Your task to perform on an android device: check out phone information Image 0: 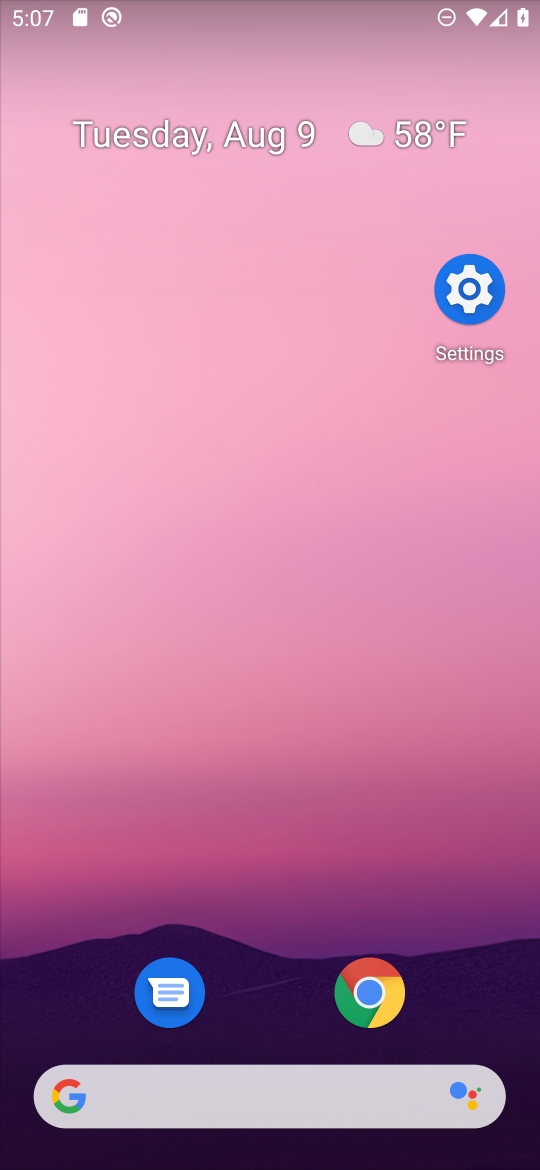
Step 0: drag from (296, 1087) to (476, 18)
Your task to perform on an android device: check out phone information Image 1: 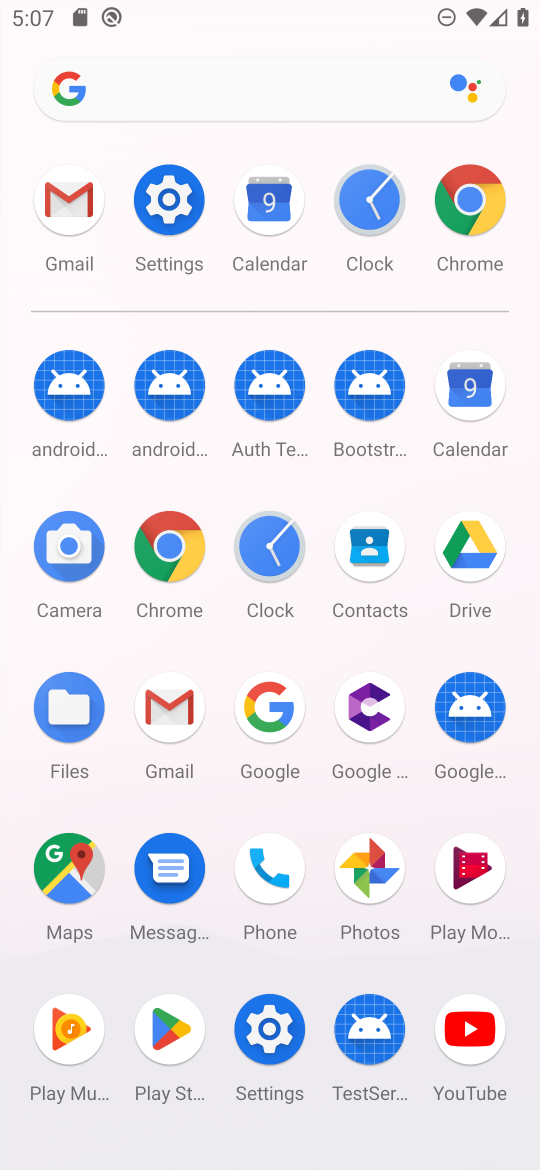
Step 1: click (186, 180)
Your task to perform on an android device: check out phone information Image 2: 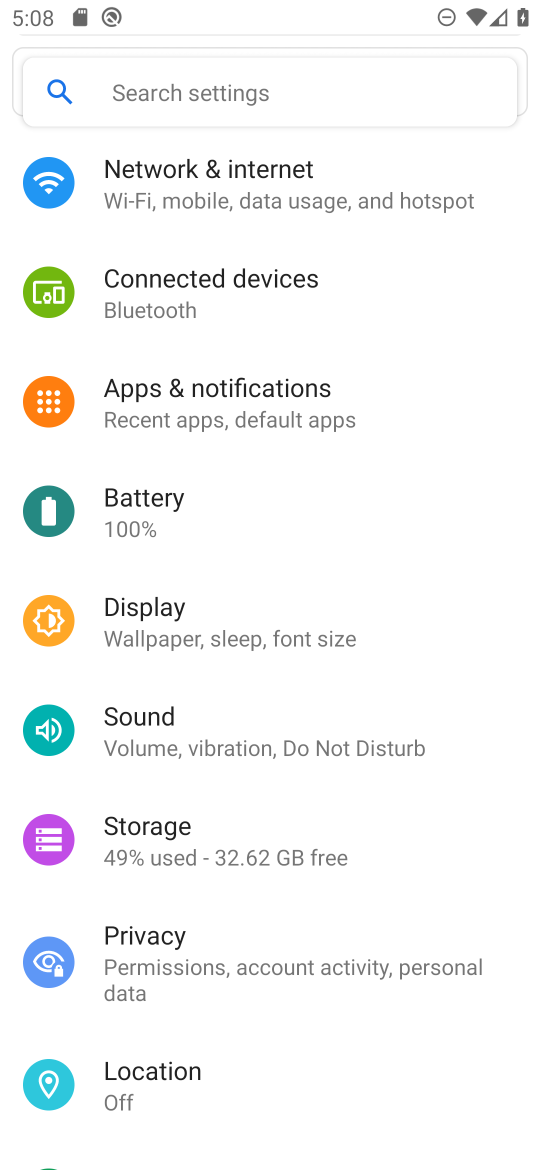
Step 2: drag from (317, 1064) to (333, 976)
Your task to perform on an android device: check out phone information Image 3: 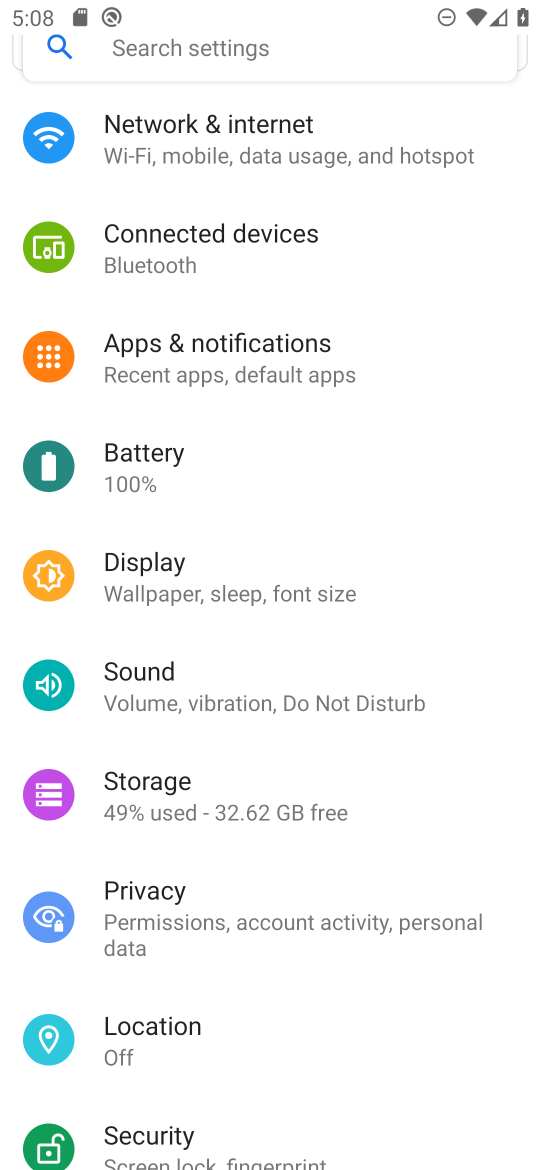
Step 3: drag from (412, 1059) to (412, 274)
Your task to perform on an android device: check out phone information Image 4: 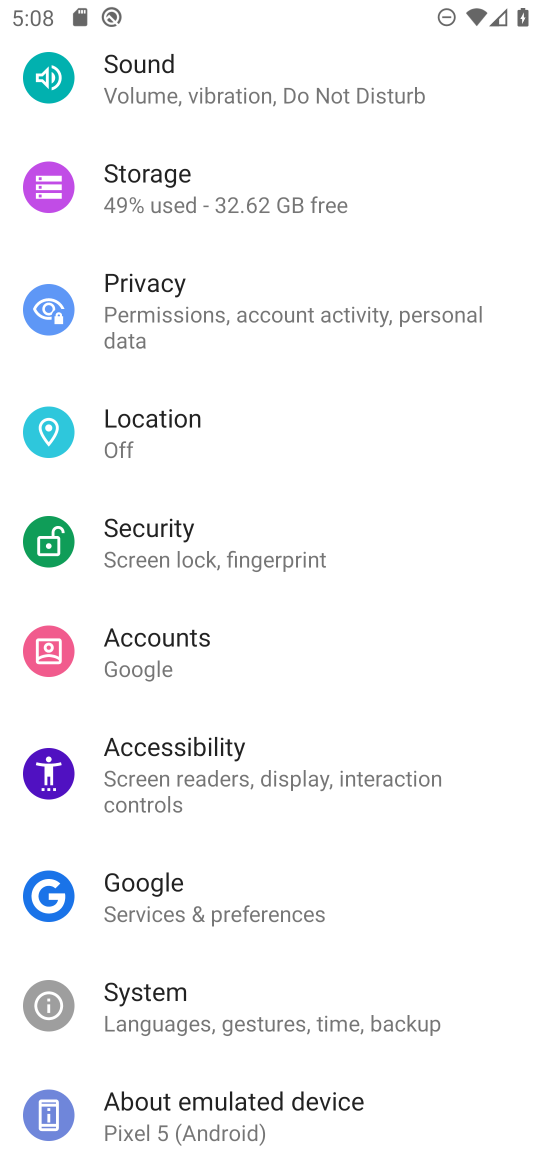
Step 4: drag from (425, 1015) to (344, 142)
Your task to perform on an android device: check out phone information Image 5: 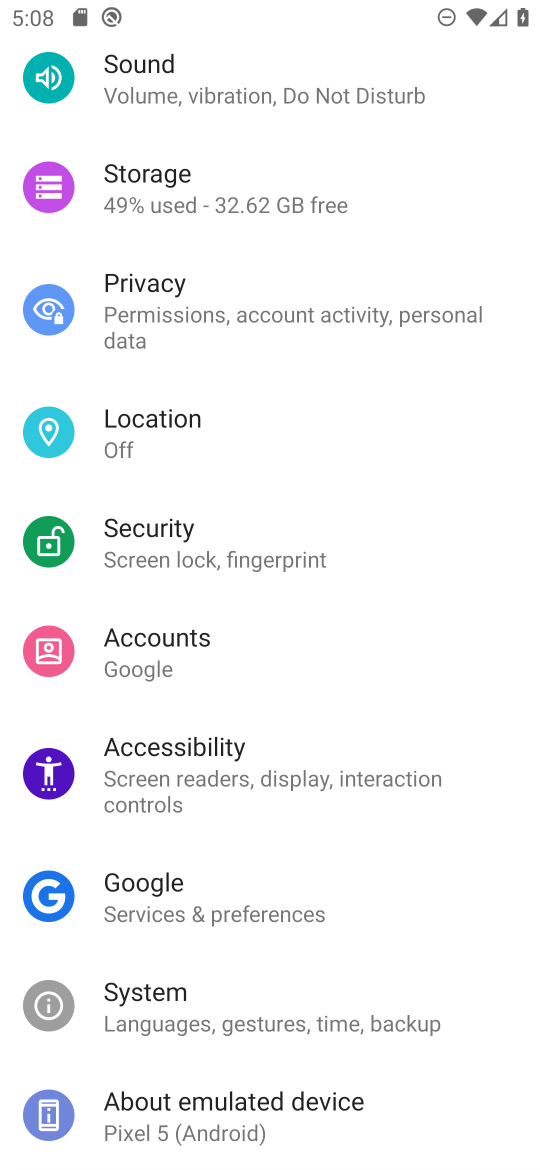
Step 5: click (277, 1107)
Your task to perform on an android device: check out phone information Image 6: 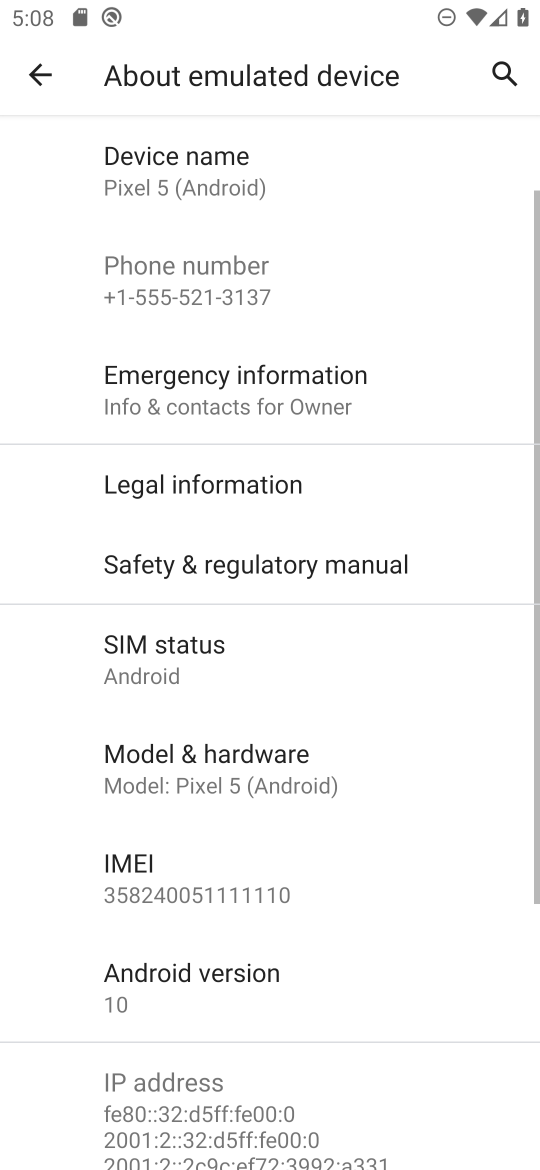
Step 6: task complete